Your task to perform on an android device: Clear the cart on costco. Add "dell alienware" to the cart on costco, then select checkout. Image 0: 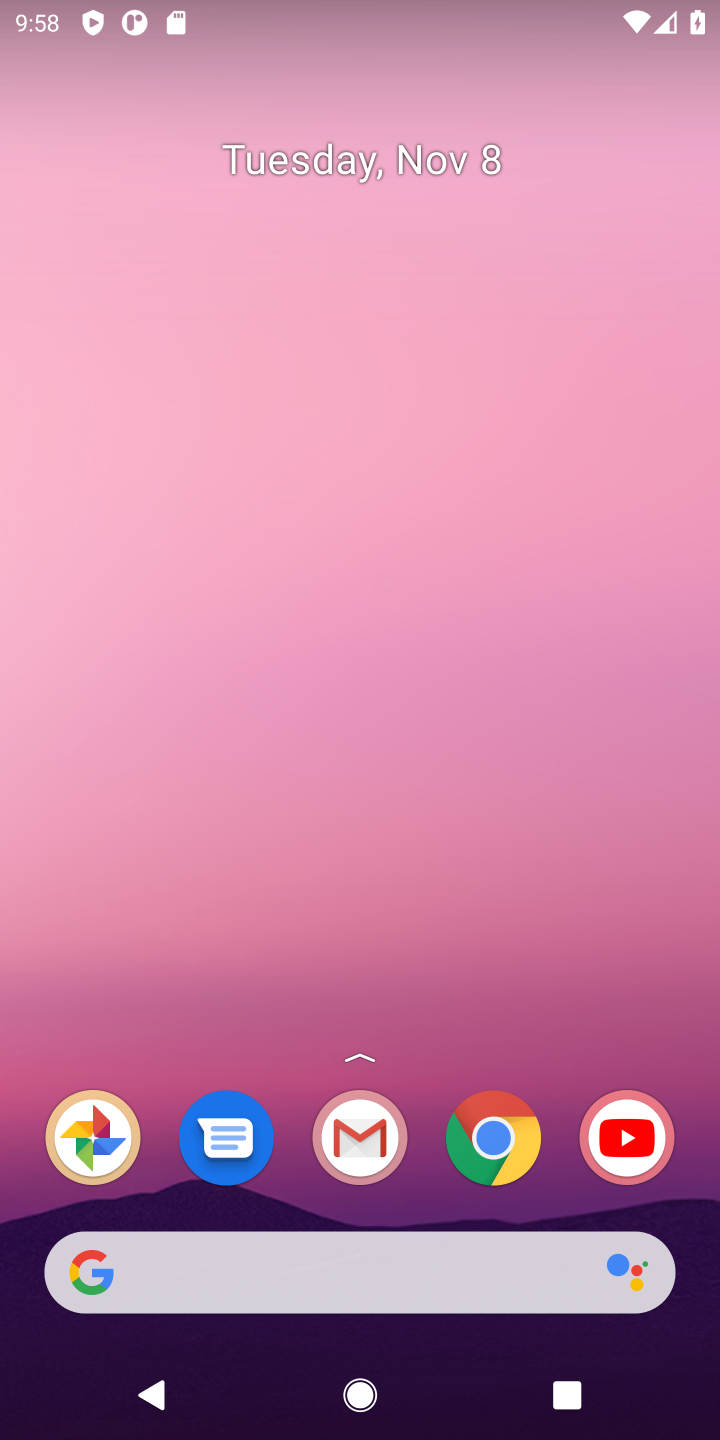
Step 0: click (508, 1144)
Your task to perform on an android device: Clear the cart on costco. Add "dell alienware" to the cart on costco, then select checkout. Image 1: 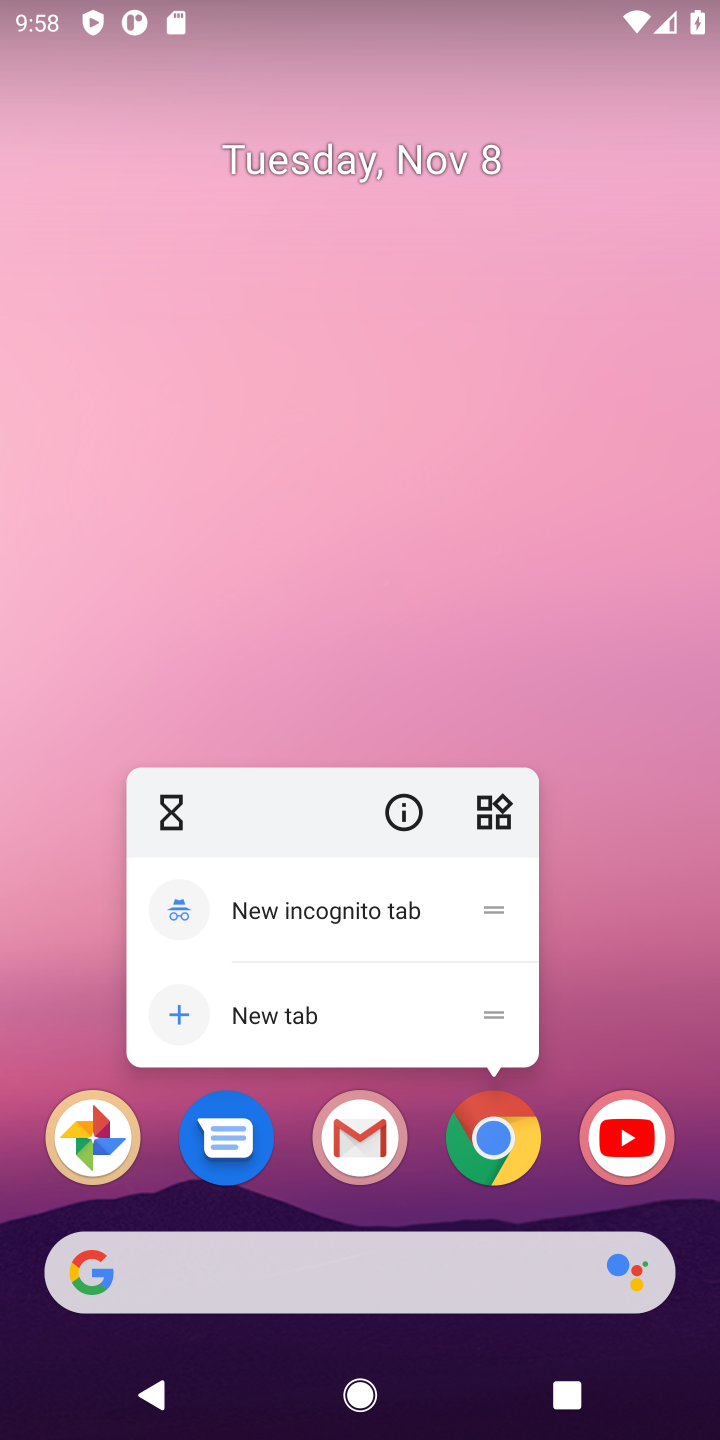
Step 1: click (497, 1145)
Your task to perform on an android device: Clear the cart on costco. Add "dell alienware" to the cart on costco, then select checkout. Image 2: 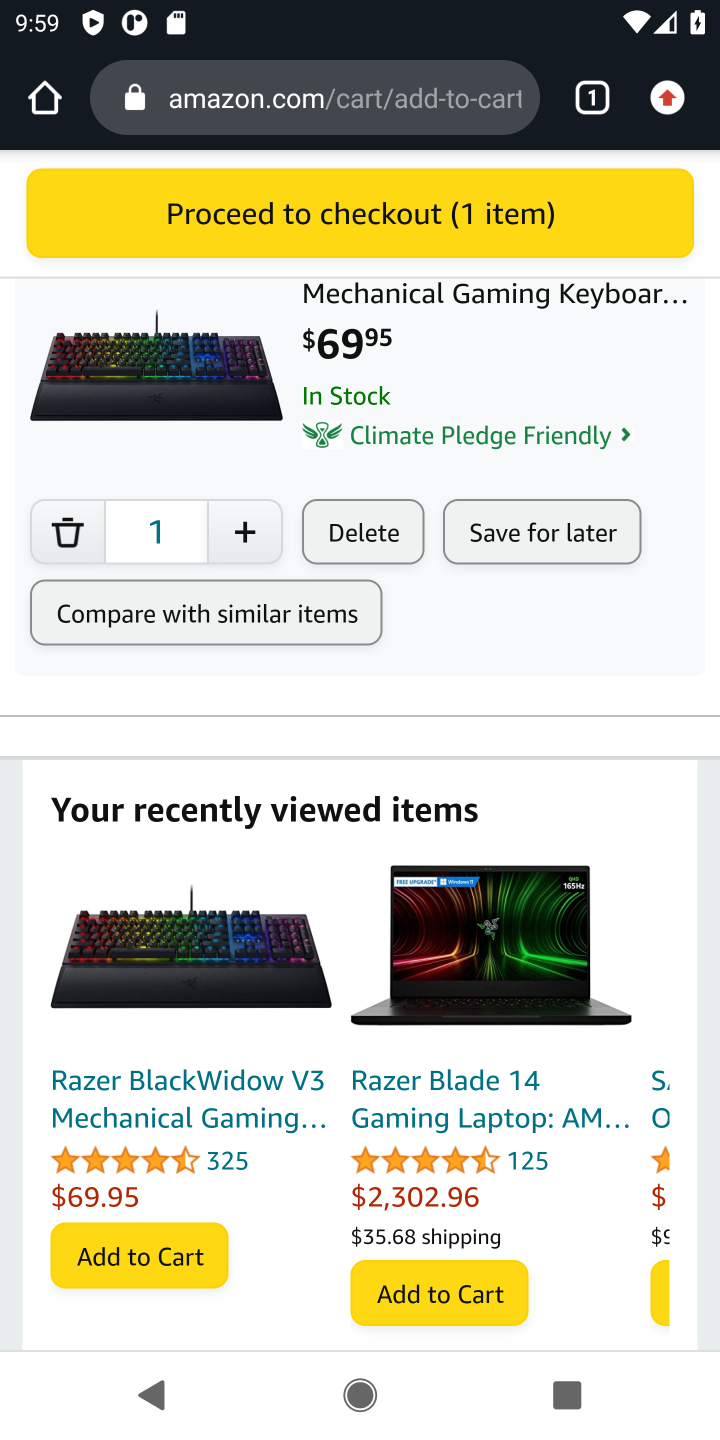
Step 2: click (359, 77)
Your task to perform on an android device: Clear the cart on costco. Add "dell alienware" to the cart on costco, then select checkout. Image 3: 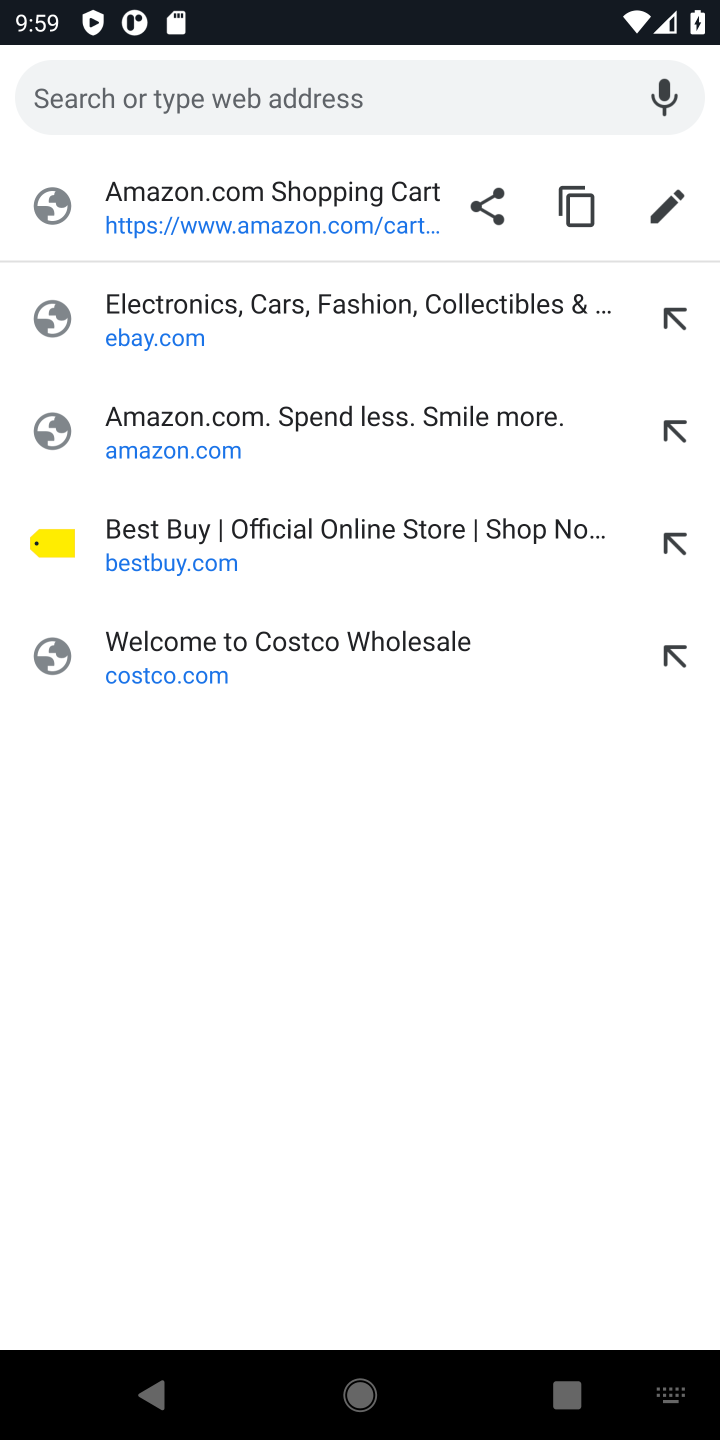
Step 3: type " costco"
Your task to perform on an android device: Clear the cart on costco. Add "dell alienware" to the cart on costco, then select checkout. Image 4: 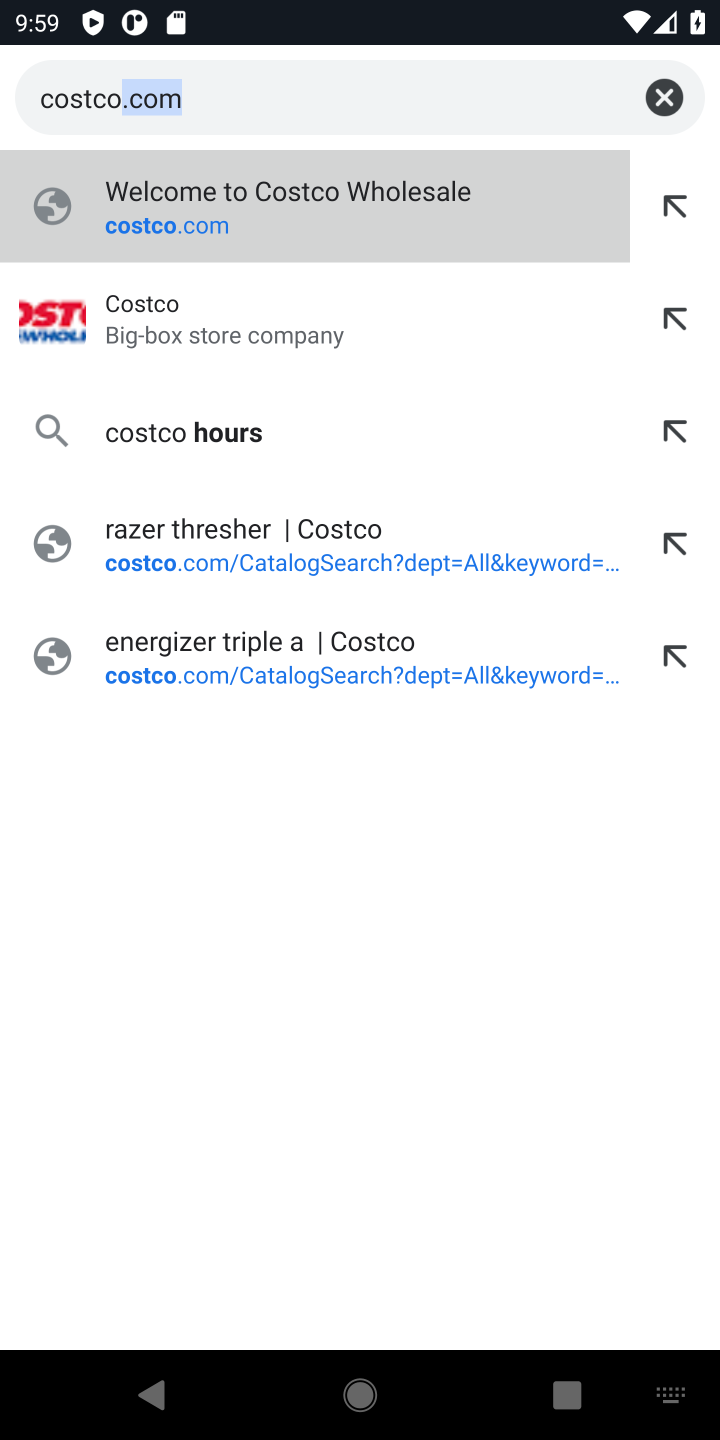
Step 4: press enter
Your task to perform on an android device: Clear the cart on costco. Add "dell alienware" to the cart on costco, then select checkout. Image 5: 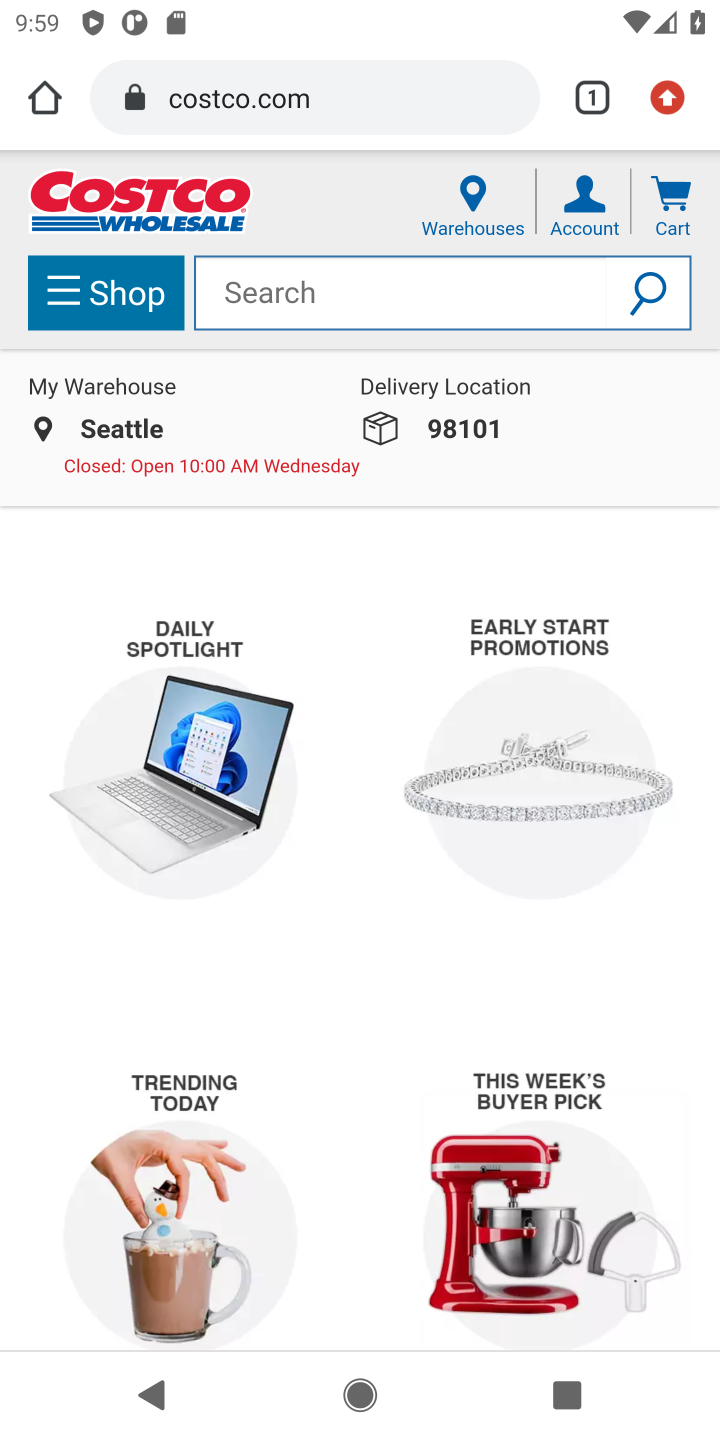
Step 5: click (364, 281)
Your task to perform on an android device: Clear the cart on costco. Add "dell alienware" to the cart on costco, then select checkout. Image 6: 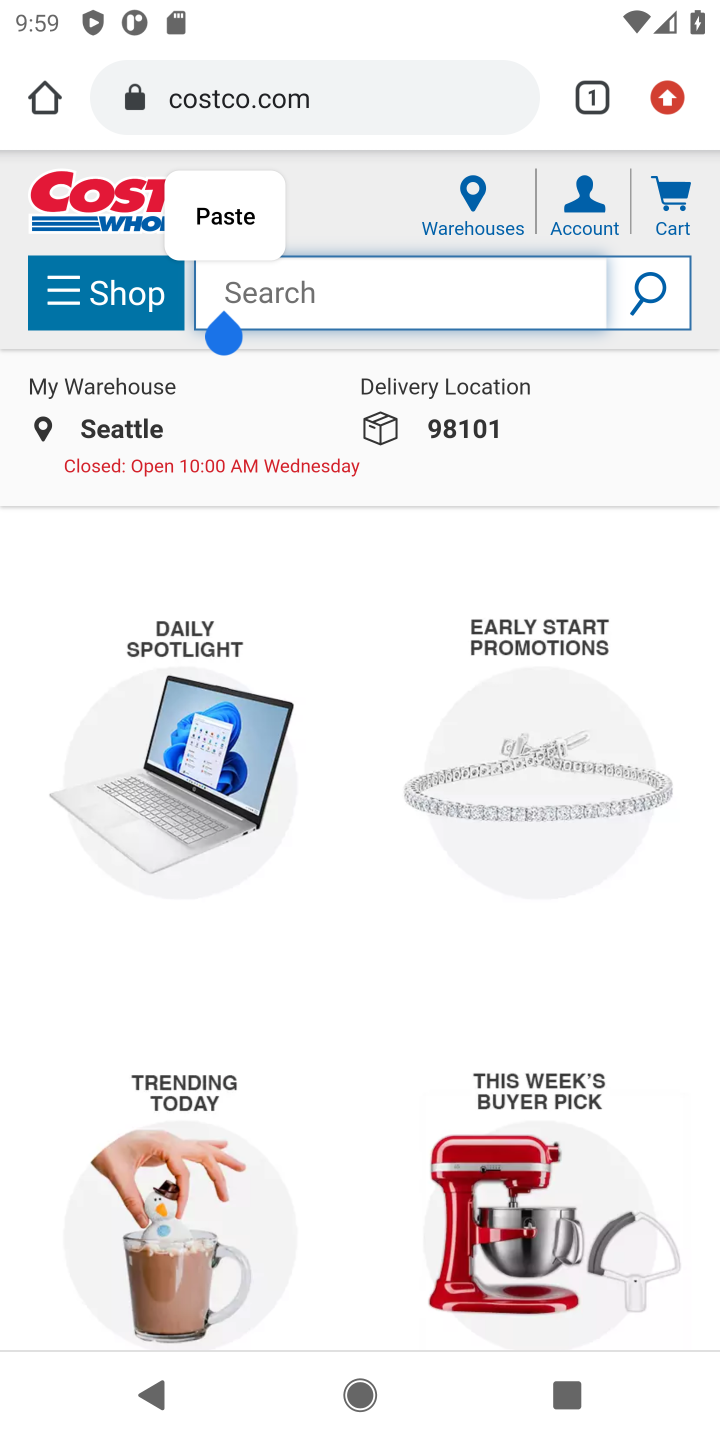
Step 6: type "dell alienware"
Your task to perform on an android device: Clear the cart on costco. Add "dell alienware" to the cart on costco, then select checkout. Image 7: 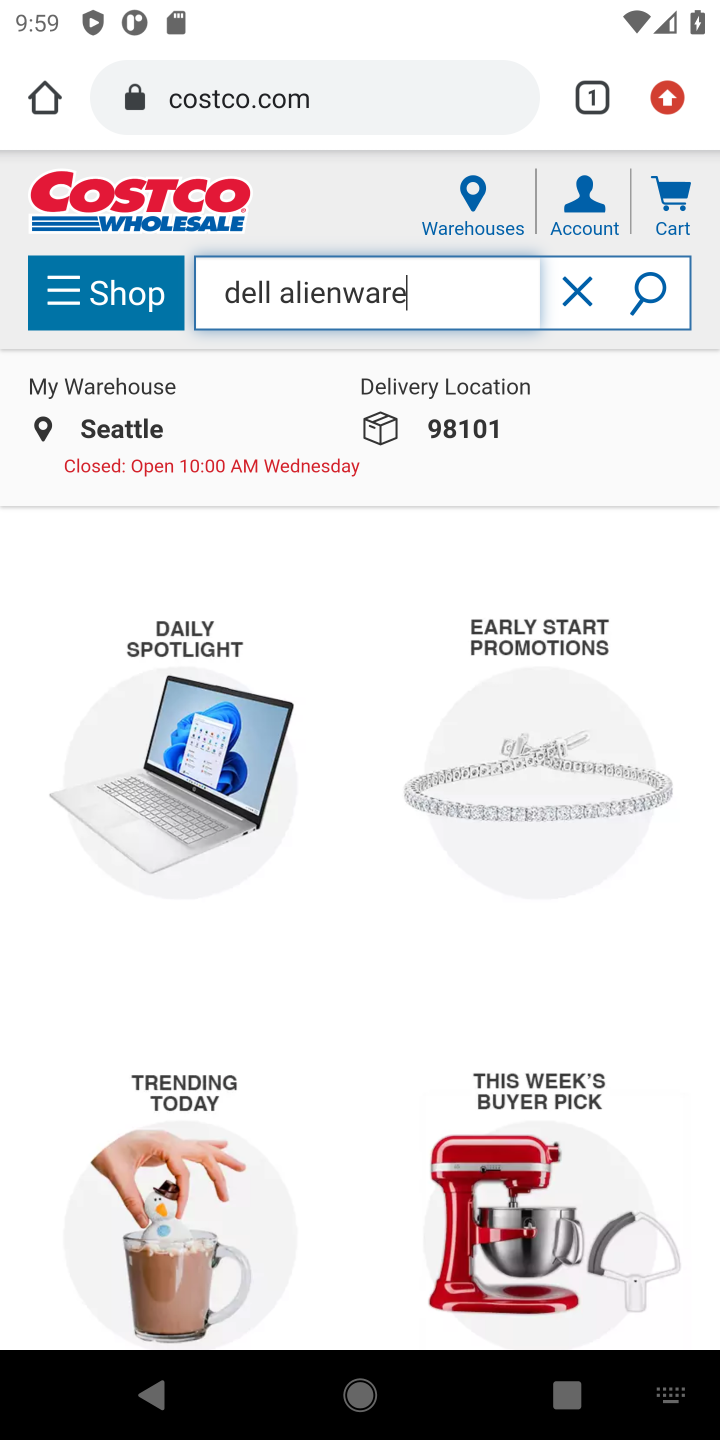
Step 7: press enter
Your task to perform on an android device: Clear the cart on costco. Add "dell alienware" to the cart on costco, then select checkout. Image 8: 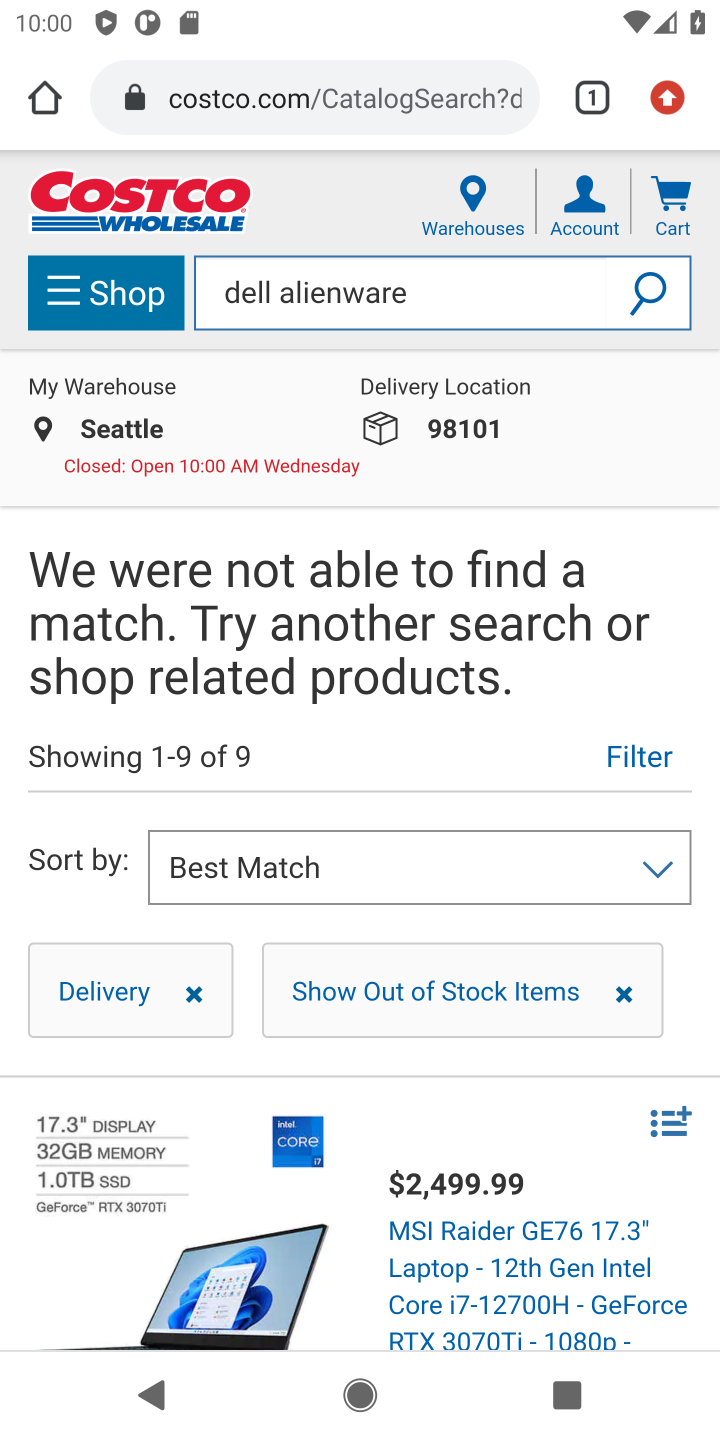
Step 8: task complete